Your task to perform on an android device: change the clock display to show seconds Image 0: 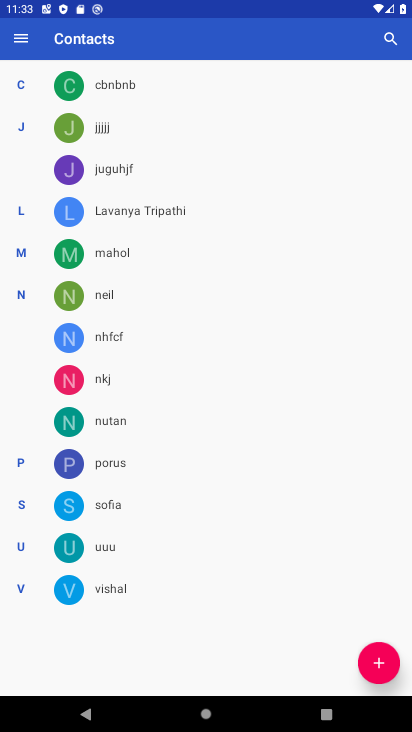
Step 0: press home button
Your task to perform on an android device: change the clock display to show seconds Image 1: 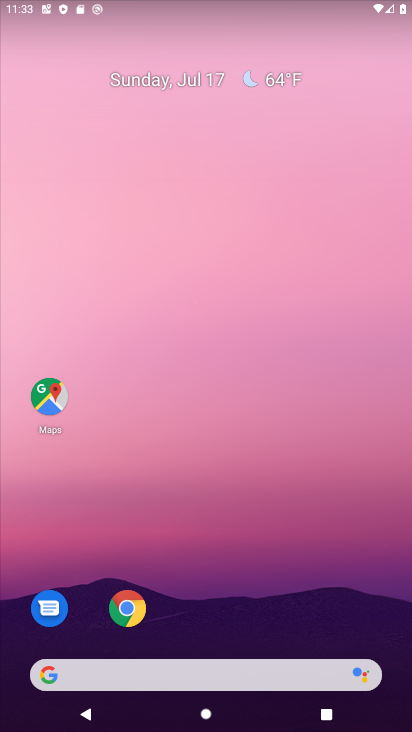
Step 1: drag from (368, 621) to (241, 3)
Your task to perform on an android device: change the clock display to show seconds Image 2: 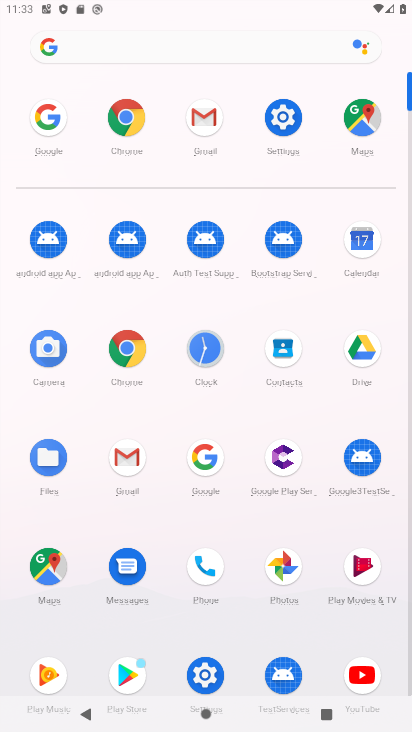
Step 2: click (200, 350)
Your task to perform on an android device: change the clock display to show seconds Image 3: 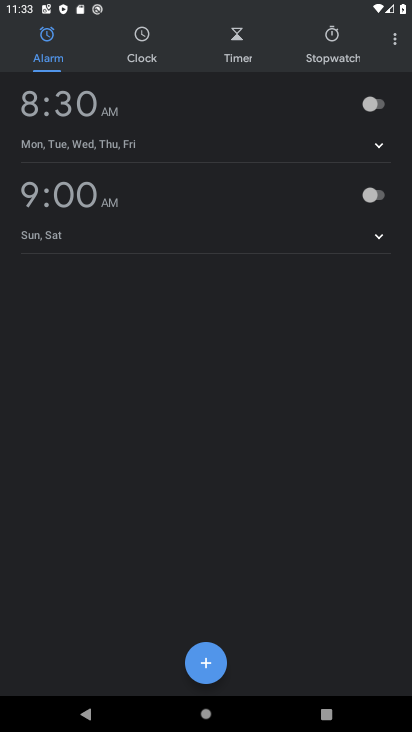
Step 3: click (395, 44)
Your task to perform on an android device: change the clock display to show seconds Image 4: 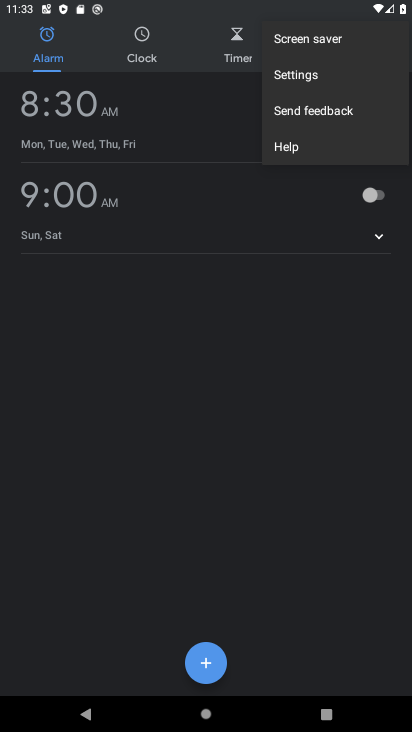
Step 4: click (313, 80)
Your task to perform on an android device: change the clock display to show seconds Image 5: 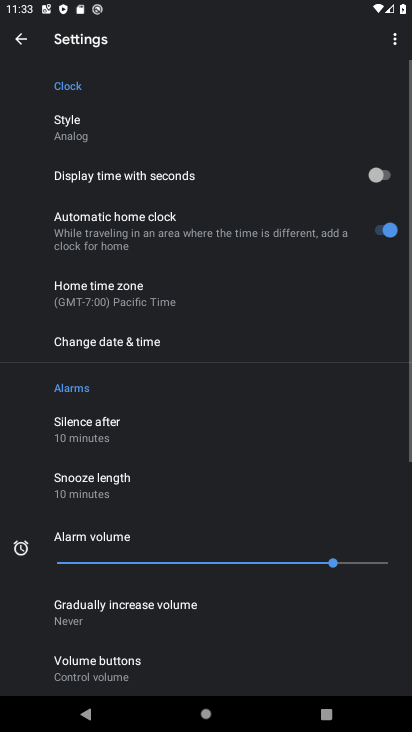
Step 5: click (223, 167)
Your task to perform on an android device: change the clock display to show seconds Image 6: 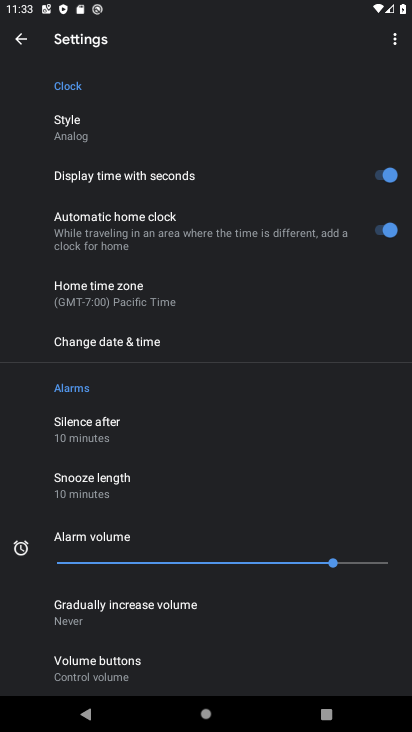
Step 6: task complete